Your task to perform on an android device: Open the Play Movies app and select the watchlist tab. Image 0: 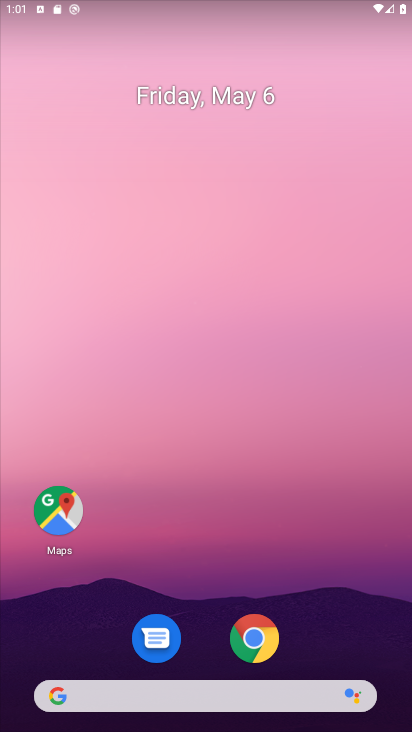
Step 0: drag from (280, 657) to (275, 21)
Your task to perform on an android device: Open the Play Movies app and select the watchlist tab. Image 1: 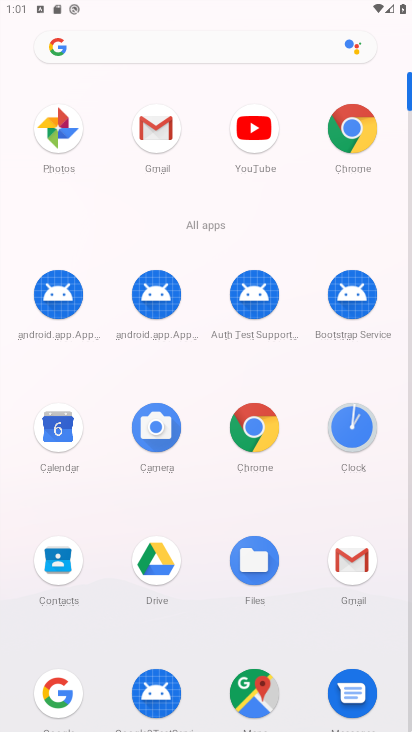
Step 1: drag from (284, 670) to (297, 28)
Your task to perform on an android device: Open the Play Movies app and select the watchlist tab. Image 2: 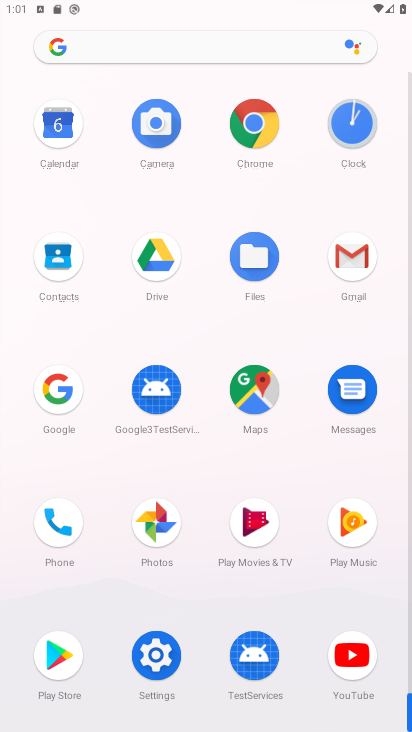
Step 2: click (264, 526)
Your task to perform on an android device: Open the Play Movies app and select the watchlist tab. Image 3: 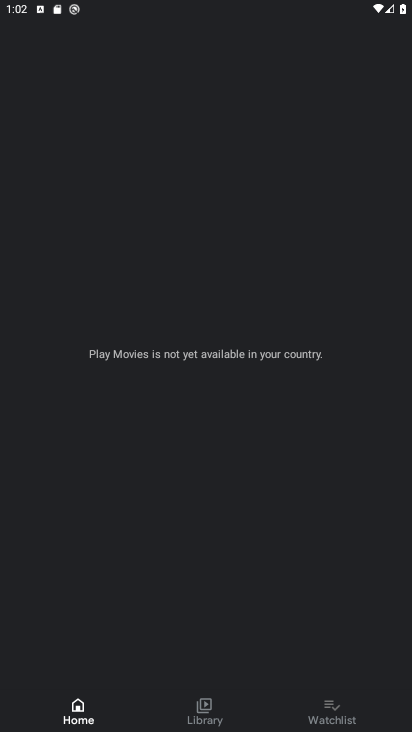
Step 3: click (338, 710)
Your task to perform on an android device: Open the Play Movies app and select the watchlist tab. Image 4: 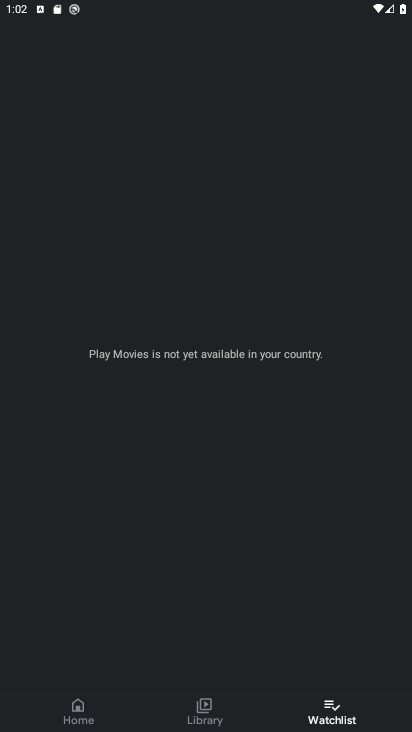
Step 4: task complete